Your task to perform on an android device: Open maps Image 0: 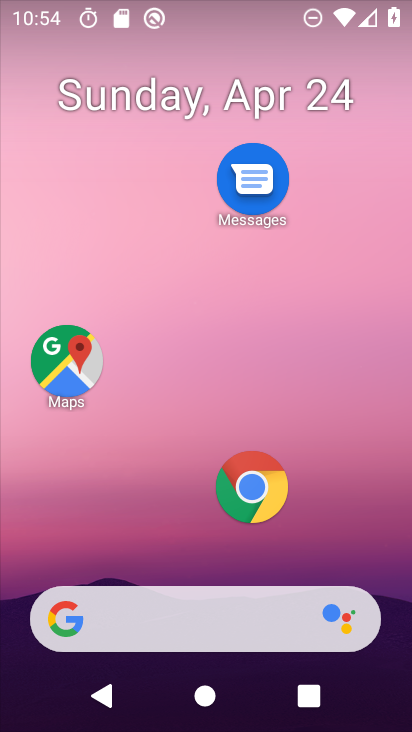
Step 0: click (74, 376)
Your task to perform on an android device: Open maps Image 1: 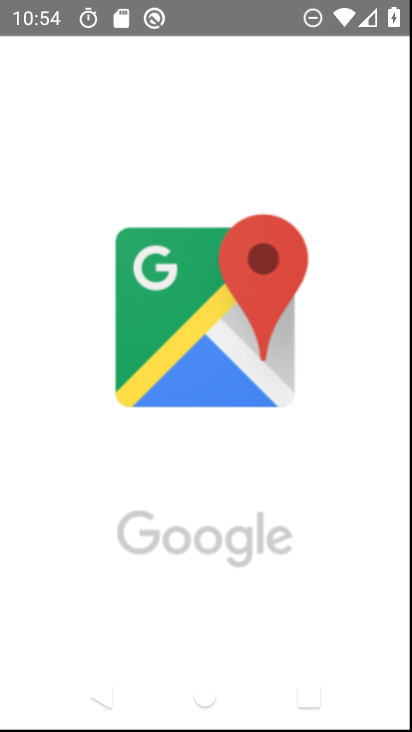
Step 1: click (217, 498)
Your task to perform on an android device: Open maps Image 2: 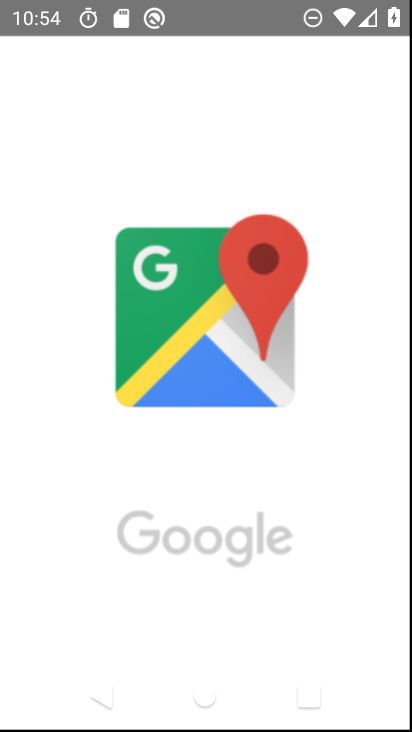
Step 2: task complete